Your task to perform on an android device: Open Youtube and go to the subscriptions tab Image 0: 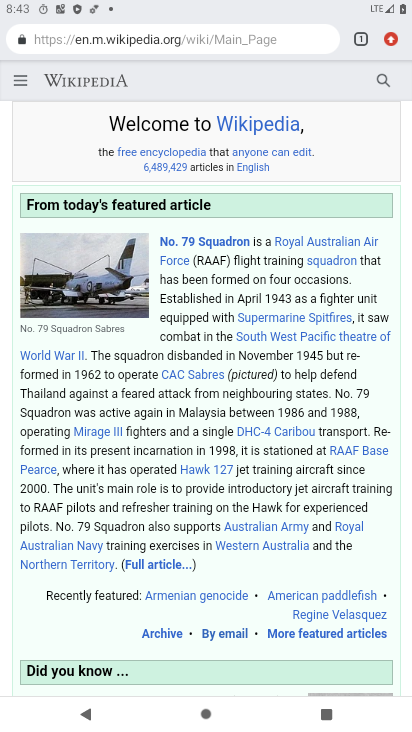
Step 0: press home button
Your task to perform on an android device: Open Youtube and go to the subscriptions tab Image 1: 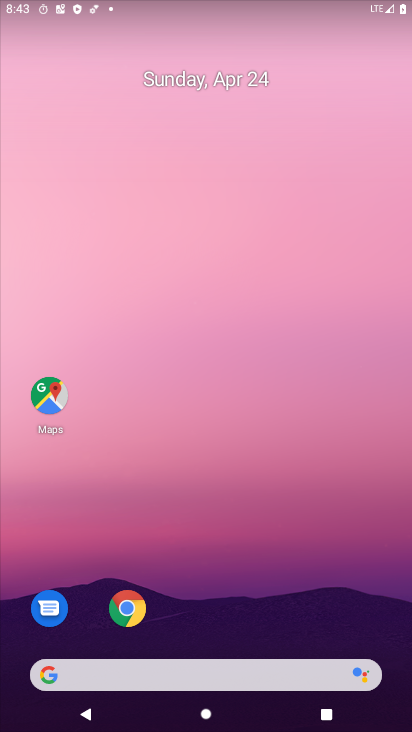
Step 1: drag from (295, 582) to (268, 42)
Your task to perform on an android device: Open Youtube and go to the subscriptions tab Image 2: 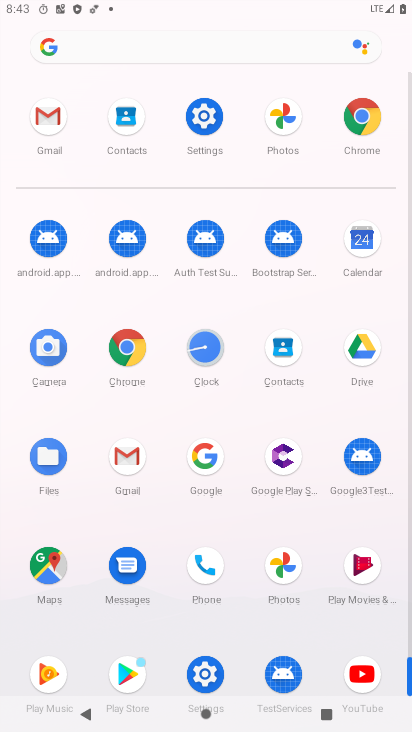
Step 2: click (364, 666)
Your task to perform on an android device: Open Youtube and go to the subscriptions tab Image 3: 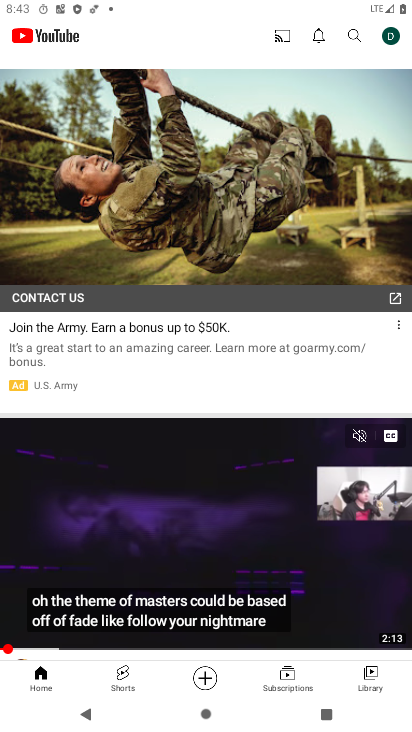
Step 3: click (280, 677)
Your task to perform on an android device: Open Youtube and go to the subscriptions tab Image 4: 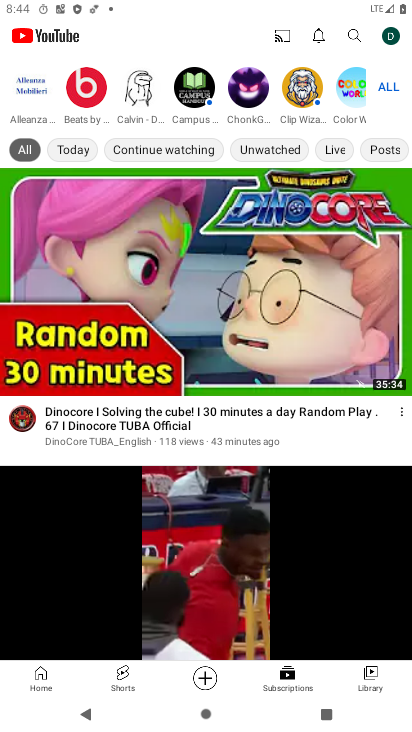
Step 4: task complete